Your task to perform on an android device: open a new tab in the chrome app Image 0: 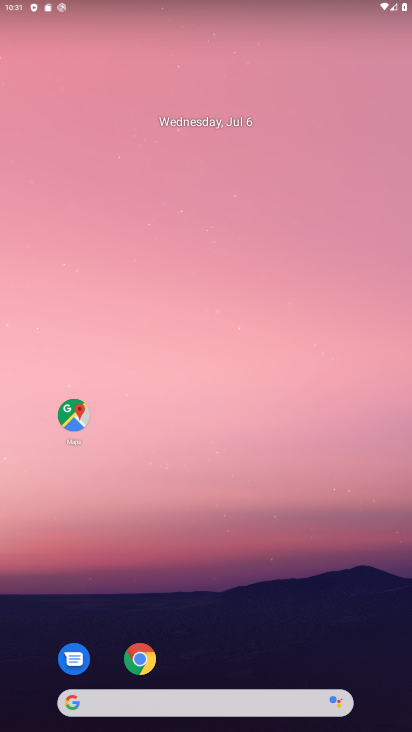
Step 0: click (145, 658)
Your task to perform on an android device: open a new tab in the chrome app Image 1: 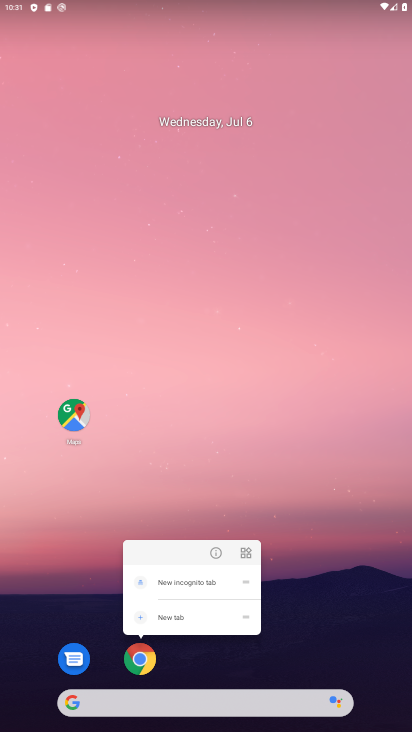
Step 1: click (142, 659)
Your task to perform on an android device: open a new tab in the chrome app Image 2: 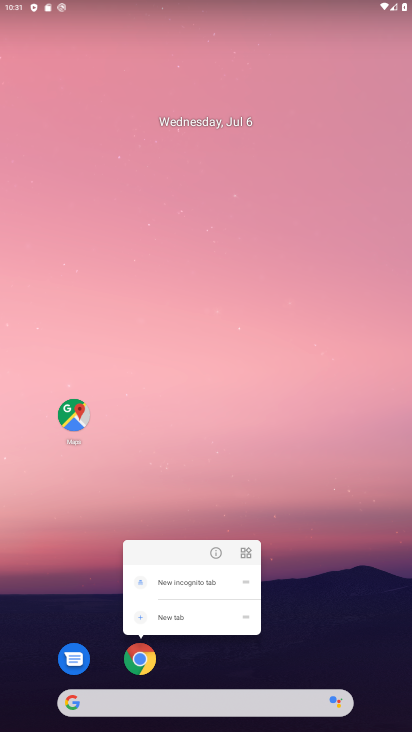
Step 2: click (150, 658)
Your task to perform on an android device: open a new tab in the chrome app Image 3: 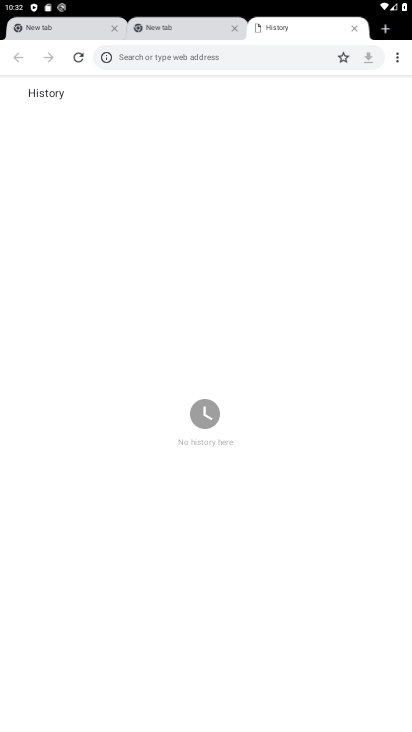
Step 3: click (51, 28)
Your task to perform on an android device: open a new tab in the chrome app Image 4: 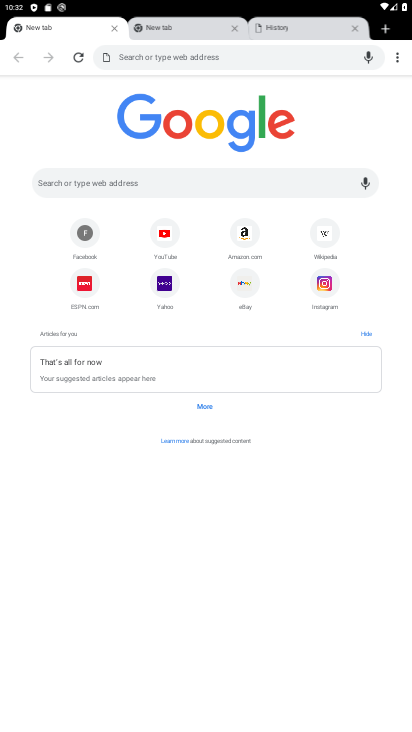
Step 4: task complete